Your task to perform on an android device: Open Chrome and go to settings Image 0: 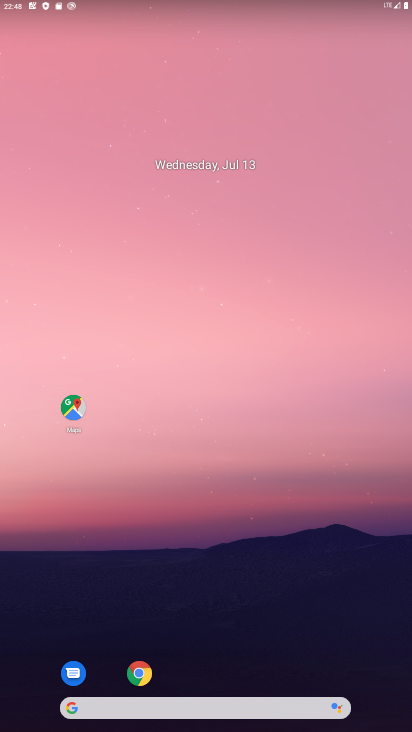
Step 0: drag from (216, 655) to (2, 643)
Your task to perform on an android device: Open Chrome and go to settings Image 1: 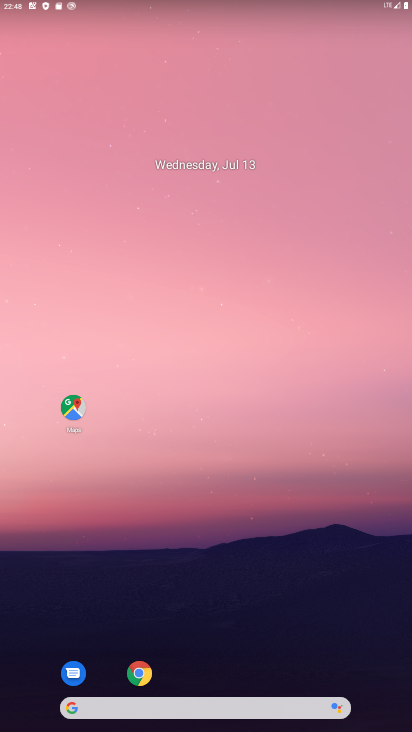
Step 1: click (142, 670)
Your task to perform on an android device: Open Chrome and go to settings Image 2: 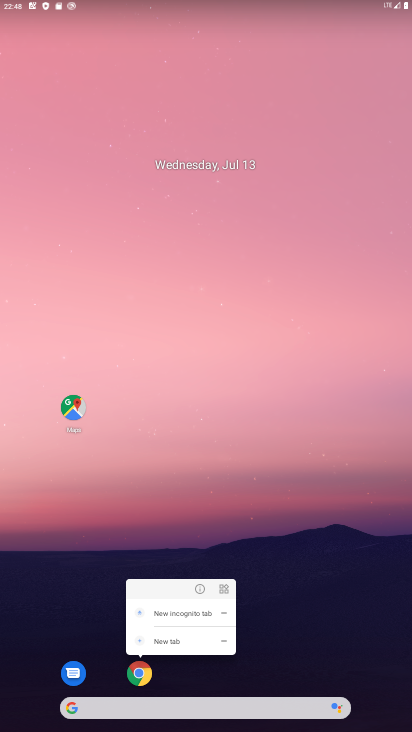
Step 2: click (204, 586)
Your task to perform on an android device: Open Chrome and go to settings Image 3: 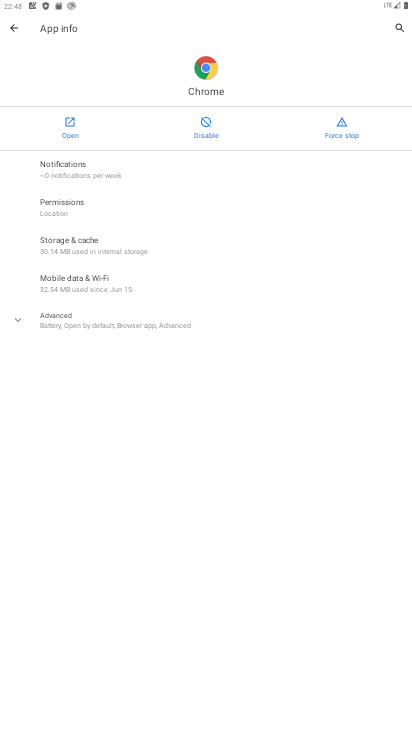
Step 3: click (64, 121)
Your task to perform on an android device: Open Chrome and go to settings Image 4: 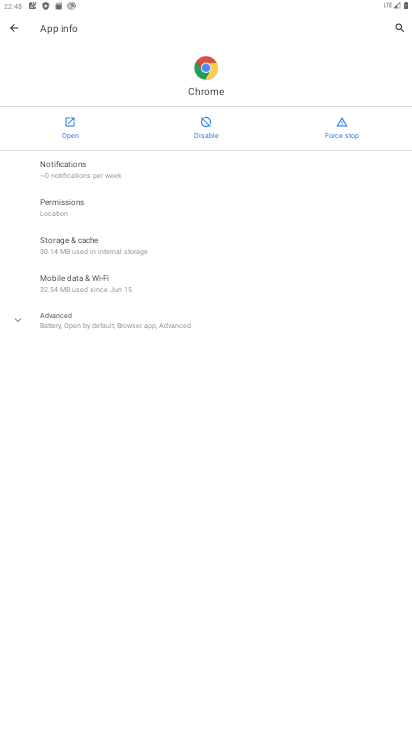
Step 4: click (64, 121)
Your task to perform on an android device: Open Chrome and go to settings Image 5: 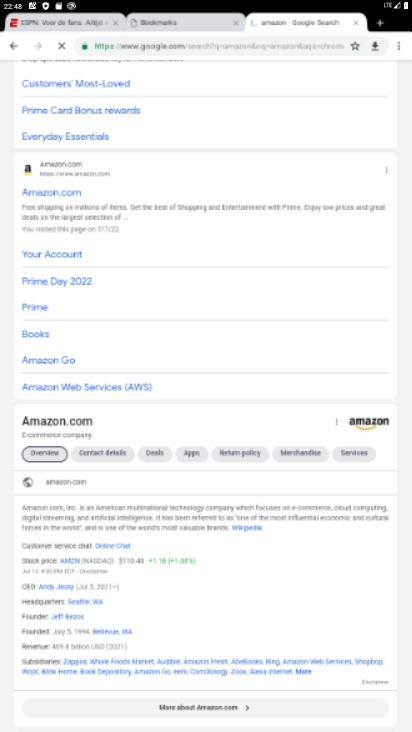
Step 5: drag from (192, 291) to (261, 721)
Your task to perform on an android device: Open Chrome and go to settings Image 6: 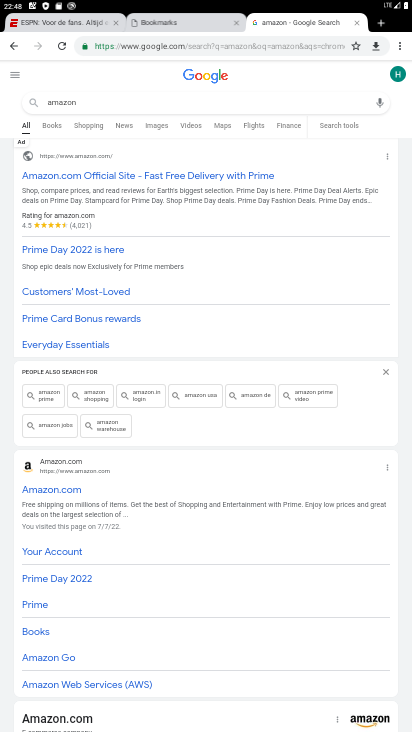
Step 6: drag from (215, 232) to (267, 730)
Your task to perform on an android device: Open Chrome and go to settings Image 7: 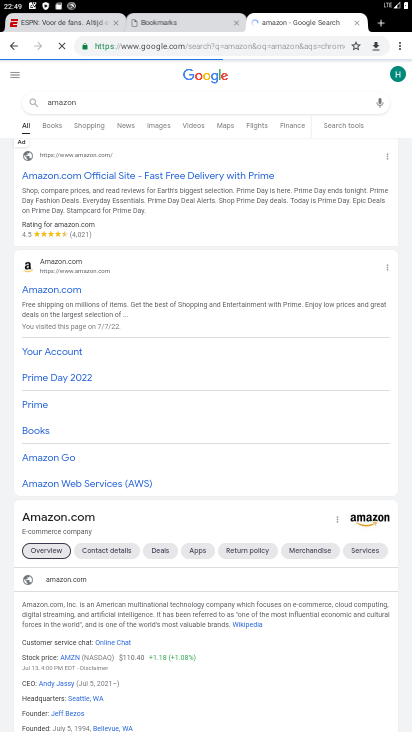
Step 7: click (403, 48)
Your task to perform on an android device: Open Chrome and go to settings Image 8: 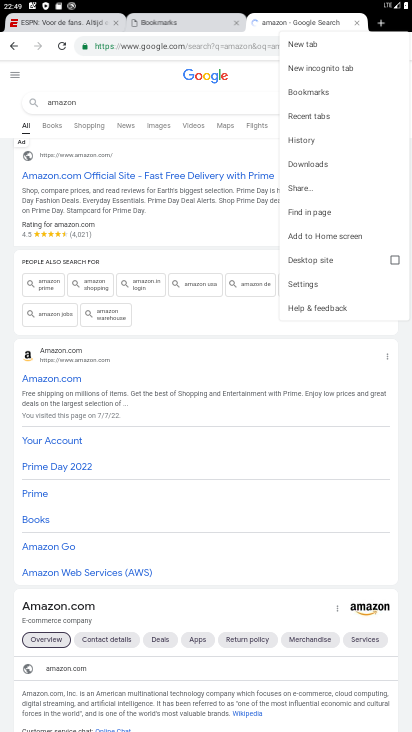
Step 8: click (317, 281)
Your task to perform on an android device: Open Chrome and go to settings Image 9: 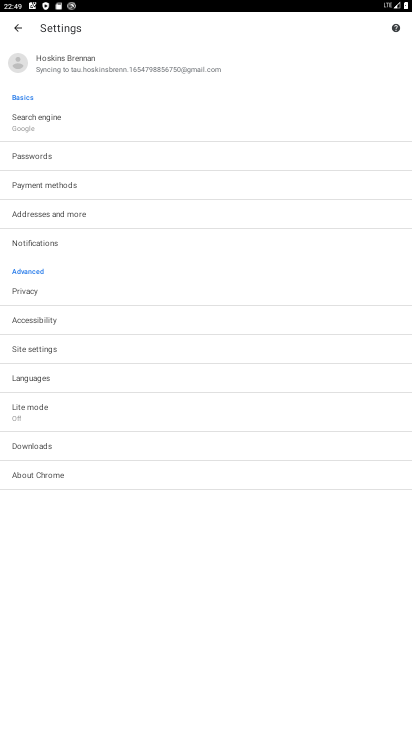
Step 9: task complete